Your task to perform on an android device: move a message to another label in the gmail app Image 0: 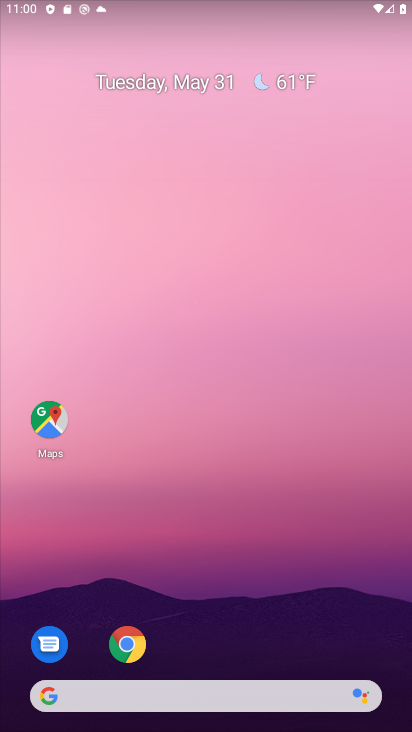
Step 0: drag from (290, 544) to (298, 148)
Your task to perform on an android device: move a message to another label in the gmail app Image 1: 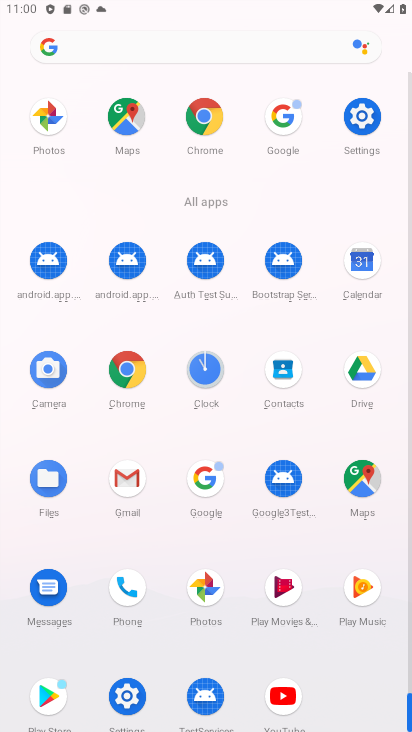
Step 1: click (123, 476)
Your task to perform on an android device: move a message to another label in the gmail app Image 2: 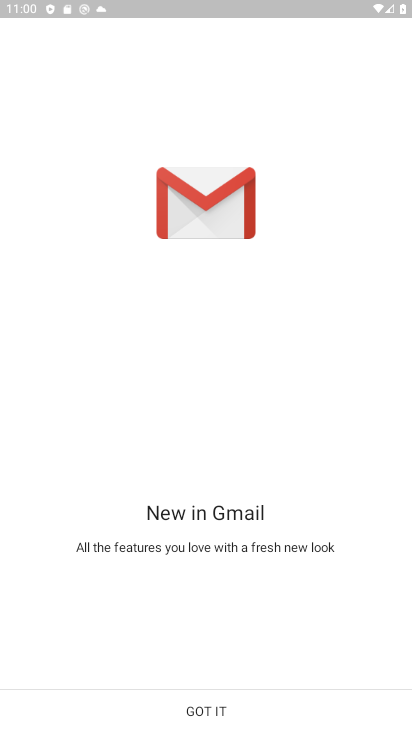
Step 2: click (206, 716)
Your task to perform on an android device: move a message to another label in the gmail app Image 3: 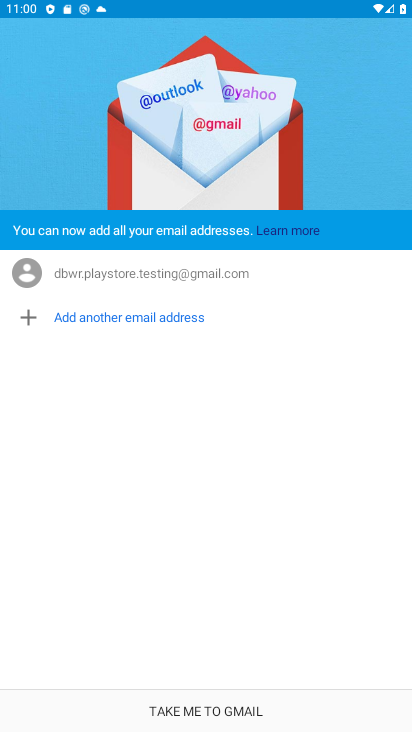
Step 3: click (218, 705)
Your task to perform on an android device: move a message to another label in the gmail app Image 4: 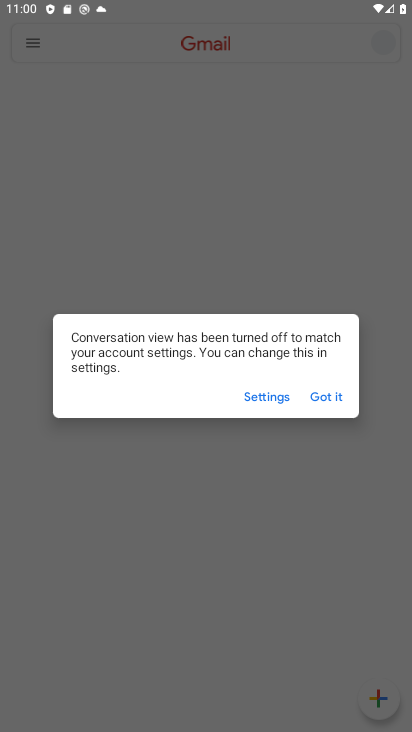
Step 4: click (324, 395)
Your task to perform on an android device: move a message to another label in the gmail app Image 5: 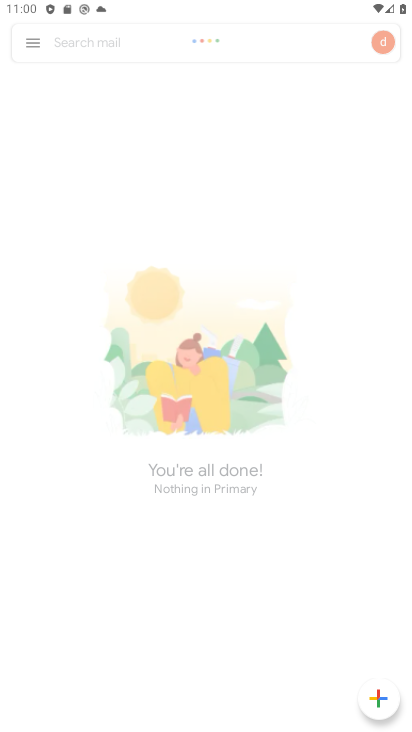
Step 5: click (36, 41)
Your task to perform on an android device: move a message to another label in the gmail app Image 6: 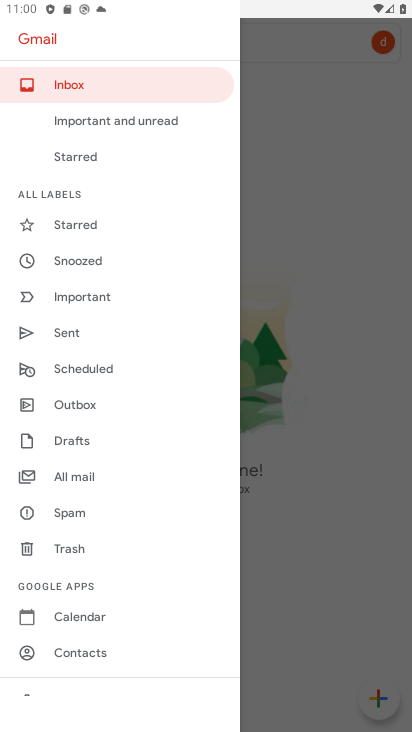
Step 6: click (86, 477)
Your task to perform on an android device: move a message to another label in the gmail app Image 7: 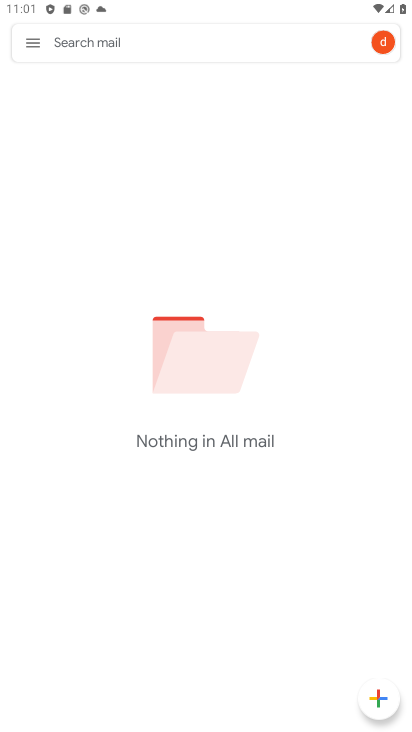
Step 7: task complete